Your task to perform on an android device: Is it going to rain today? Image 0: 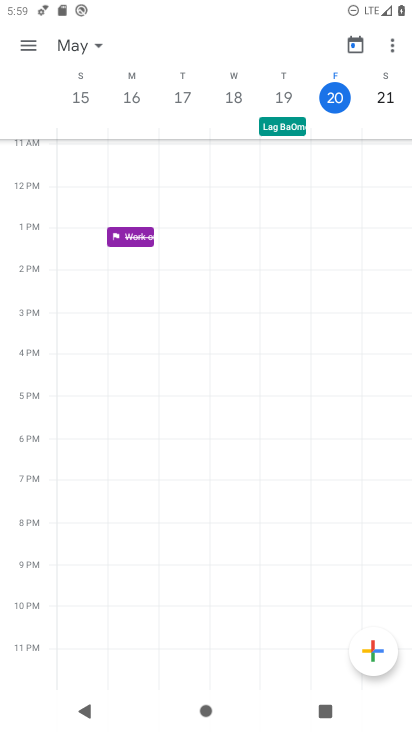
Step 0: press home button
Your task to perform on an android device: Is it going to rain today? Image 1: 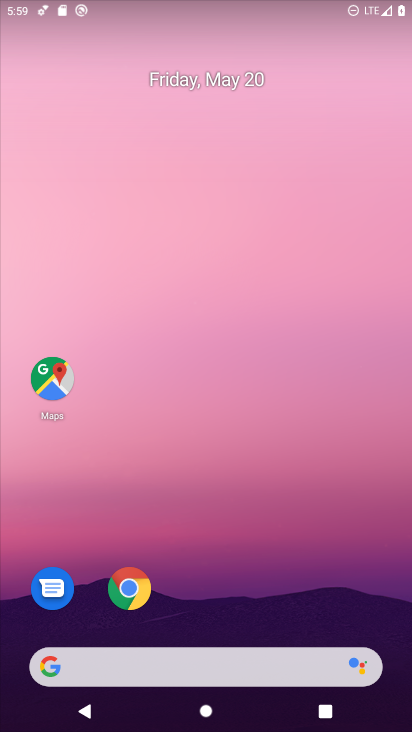
Step 1: click (129, 600)
Your task to perform on an android device: Is it going to rain today? Image 2: 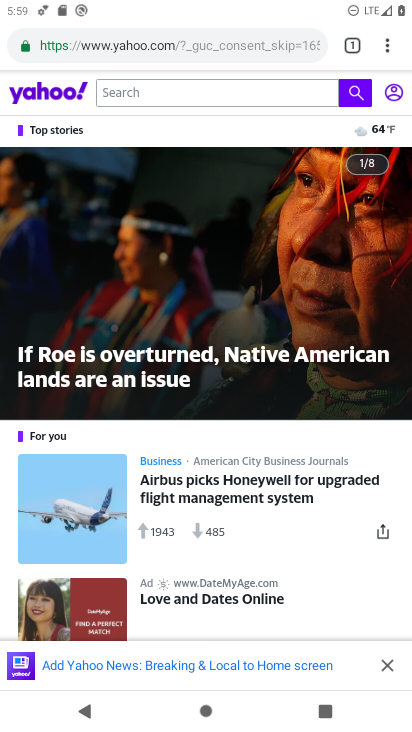
Step 2: press home button
Your task to perform on an android device: Is it going to rain today? Image 3: 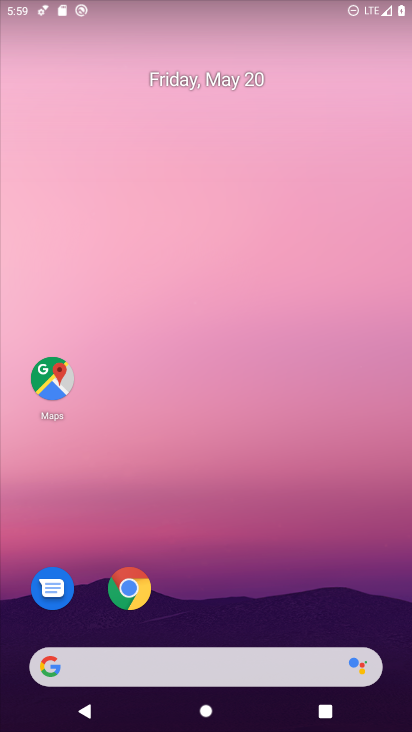
Step 3: drag from (193, 597) to (238, 0)
Your task to perform on an android device: Is it going to rain today? Image 4: 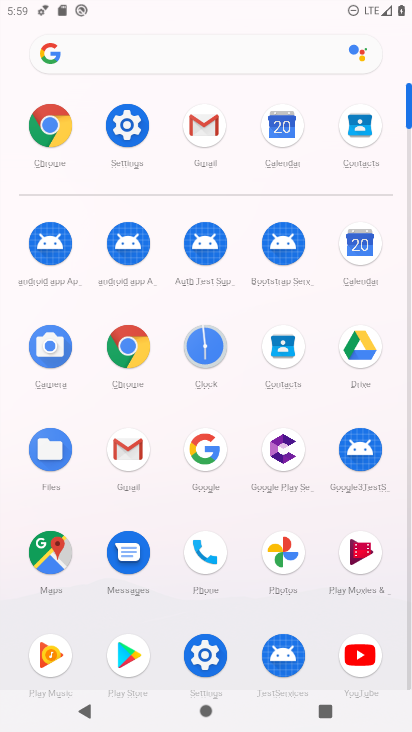
Step 4: click (229, 456)
Your task to perform on an android device: Is it going to rain today? Image 5: 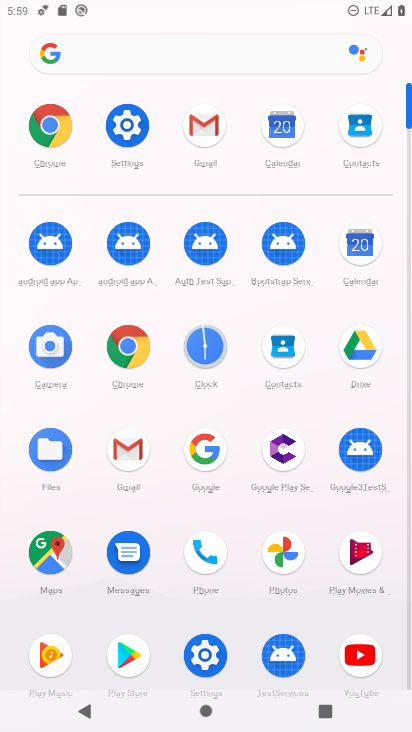
Step 5: click (193, 468)
Your task to perform on an android device: Is it going to rain today? Image 6: 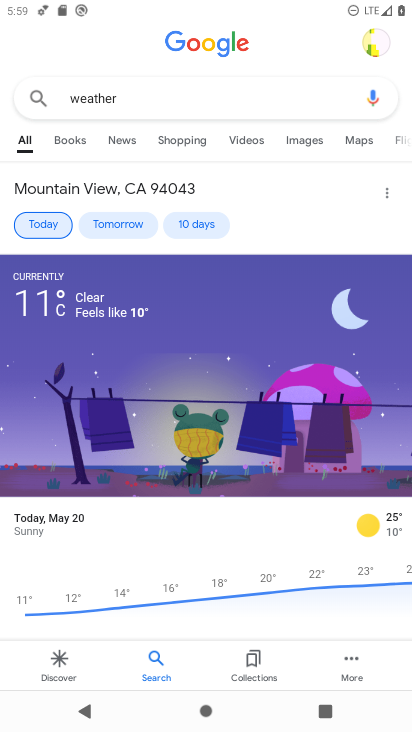
Step 6: task complete